Your task to perform on an android device: turn off airplane mode Image 0: 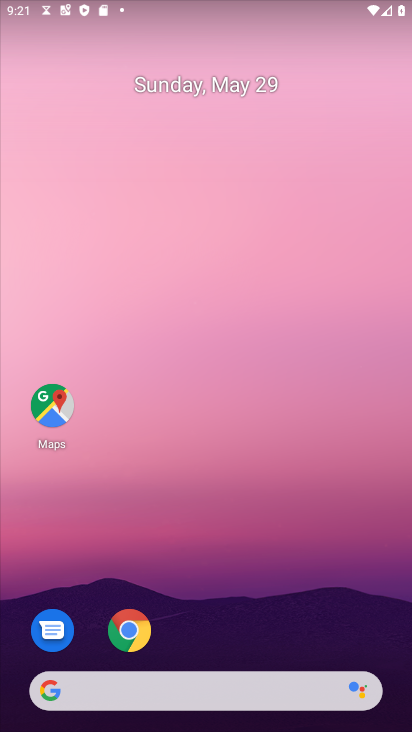
Step 0: drag from (282, 619) to (211, 296)
Your task to perform on an android device: turn off airplane mode Image 1: 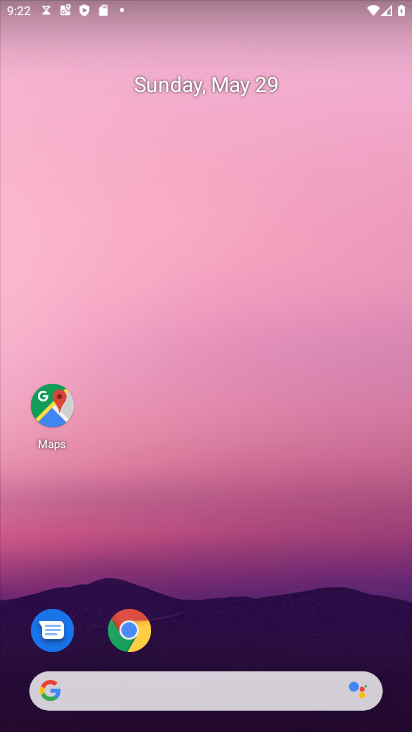
Step 1: drag from (278, 610) to (275, 82)
Your task to perform on an android device: turn off airplane mode Image 2: 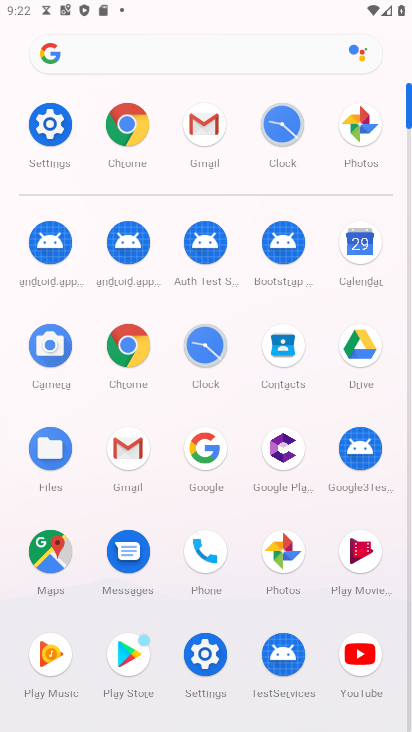
Step 2: click (46, 136)
Your task to perform on an android device: turn off airplane mode Image 3: 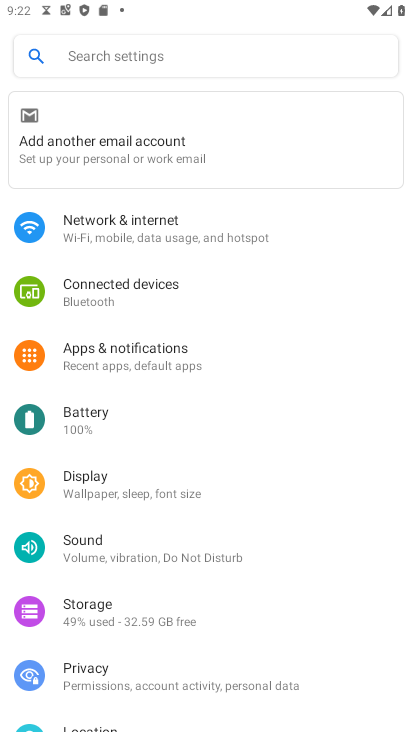
Step 3: click (151, 228)
Your task to perform on an android device: turn off airplane mode Image 4: 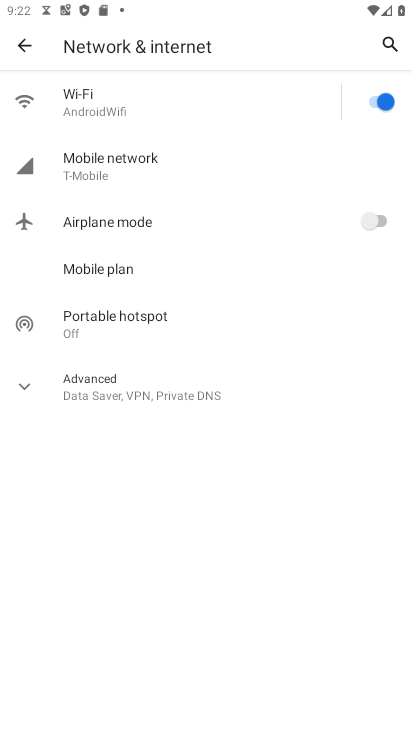
Step 4: task complete